Your task to perform on an android device: Play the last video I watched on Youtube Image 0: 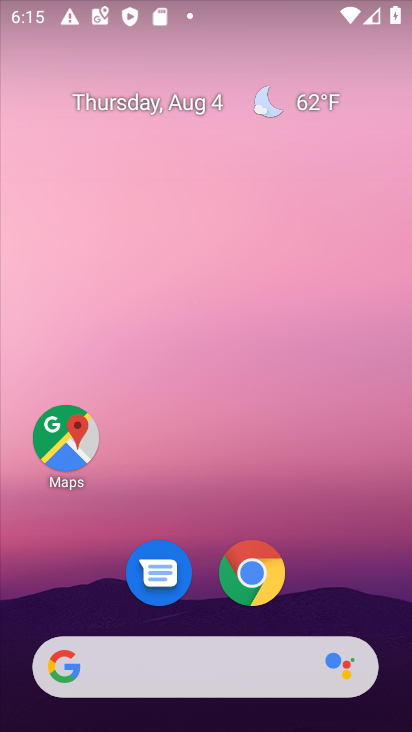
Step 0: press home button
Your task to perform on an android device: Play the last video I watched on Youtube Image 1: 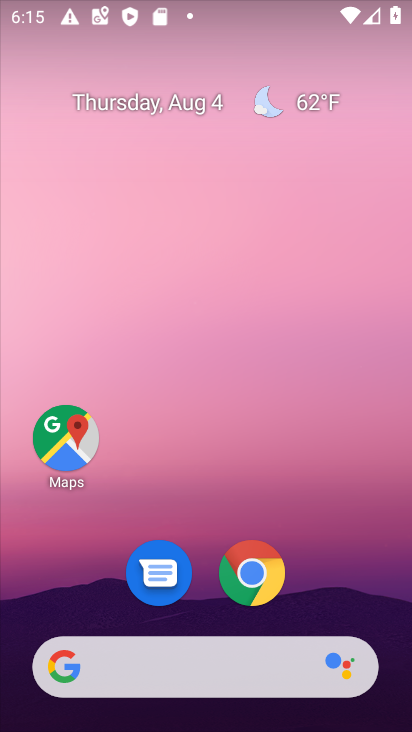
Step 1: drag from (216, 602) to (213, 266)
Your task to perform on an android device: Play the last video I watched on Youtube Image 2: 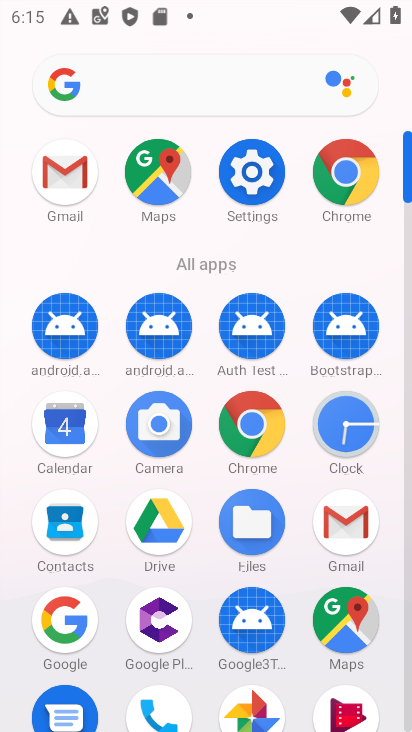
Step 2: drag from (306, 672) to (314, 193)
Your task to perform on an android device: Play the last video I watched on Youtube Image 3: 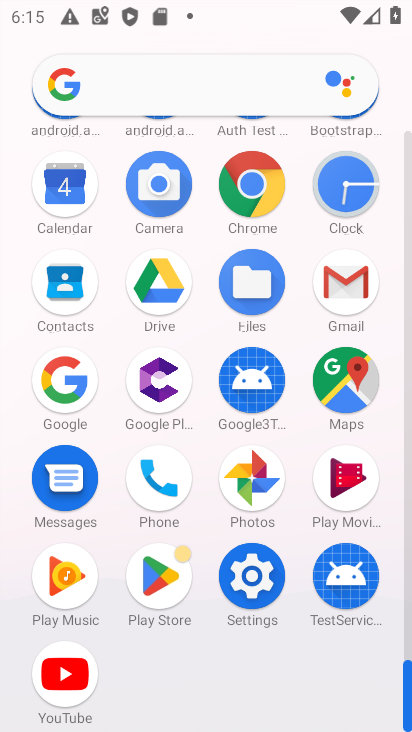
Step 3: click (51, 680)
Your task to perform on an android device: Play the last video I watched on Youtube Image 4: 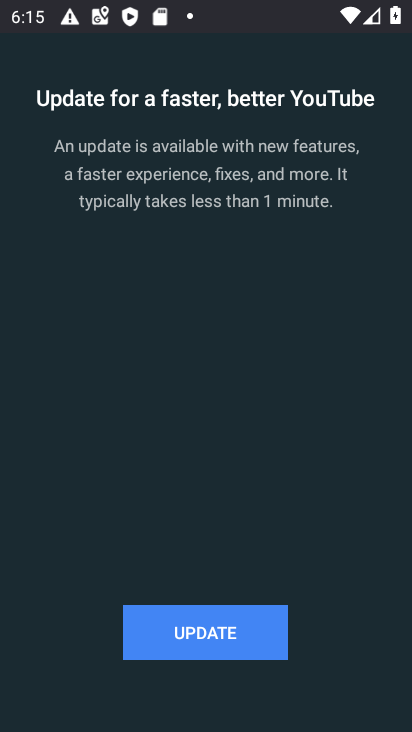
Step 4: click (162, 623)
Your task to perform on an android device: Play the last video I watched on Youtube Image 5: 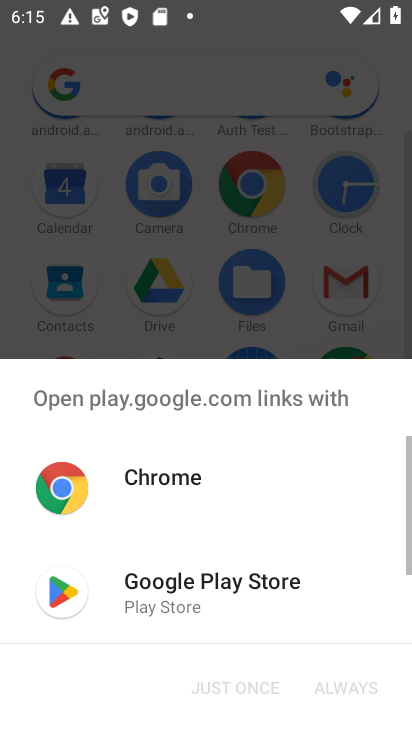
Step 5: click (188, 614)
Your task to perform on an android device: Play the last video I watched on Youtube Image 6: 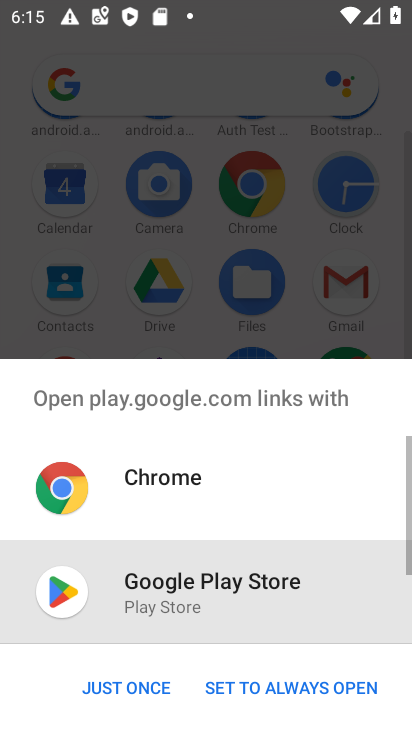
Step 6: click (109, 691)
Your task to perform on an android device: Play the last video I watched on Youtube Image 7: 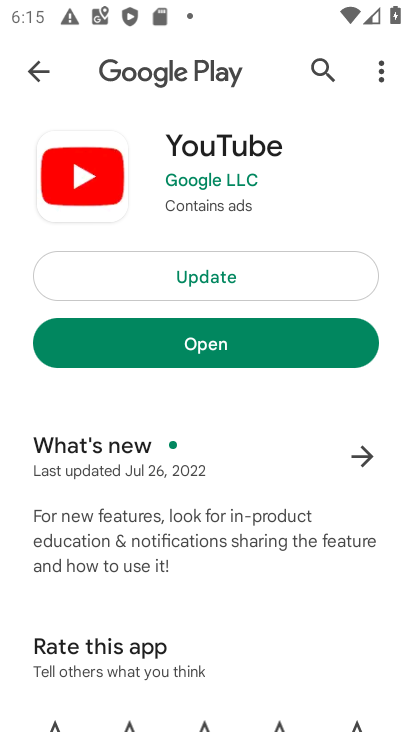
Step 7: click (166, 276)
Your task to perform on an android device: Play the last video I watched on Youtube Image 8: 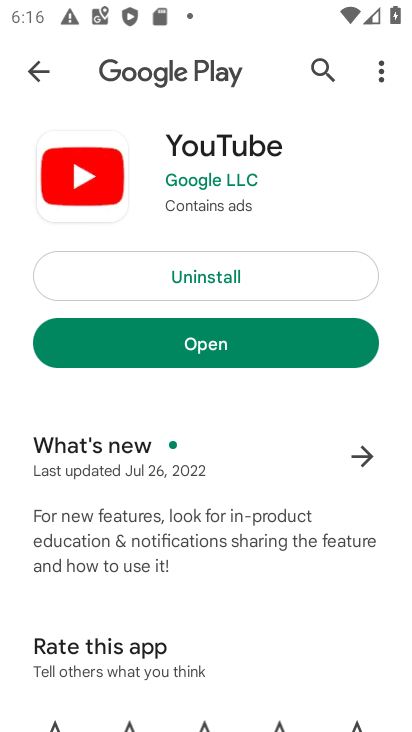
Step 8: click (147, 349)
Your task to perform on an android device: Play the last video I watched on Youtube Image 9: 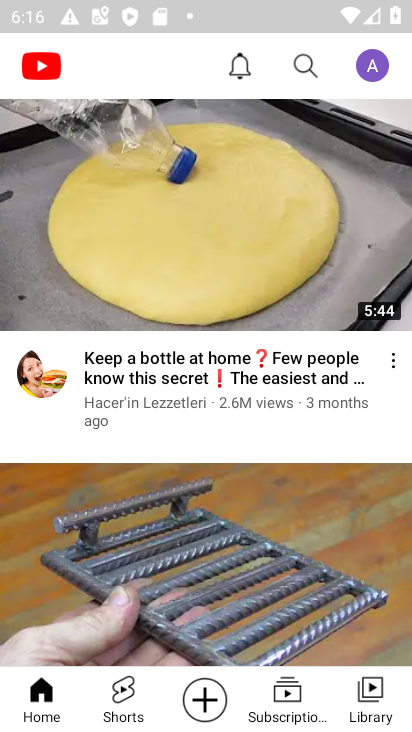
Step 9: click (369, 693)
Your task to perform on an android device: Play the last video I watched on Youtube Image 10: 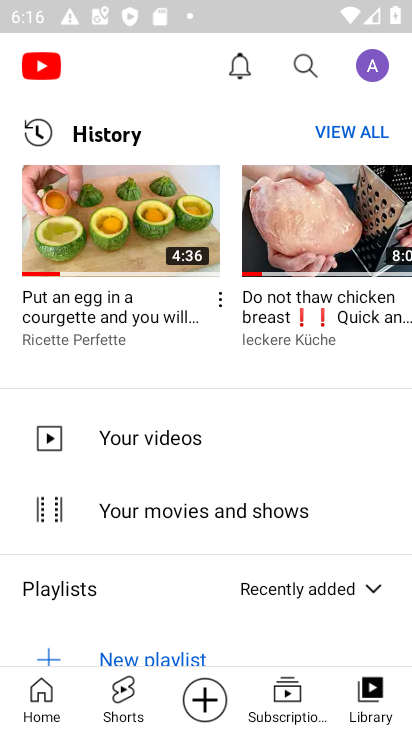
Step 10: click (99, 237)
Your task to perform on an android device: Play the last video I watched on Youtube Image 11: 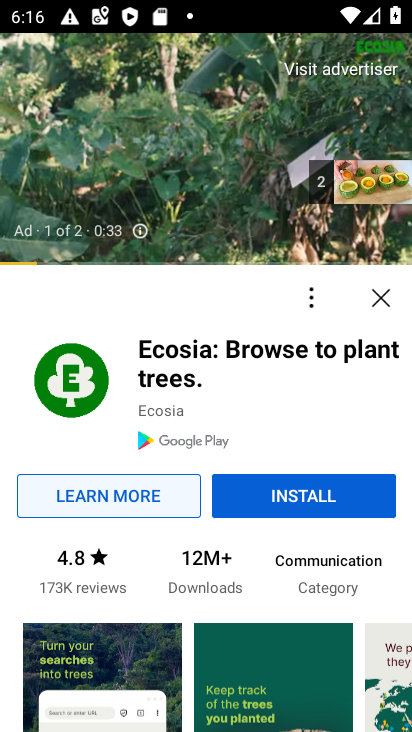
Step 11: task complete